Your task to perform on an android device: allow cookies in the chrome app Image 0: 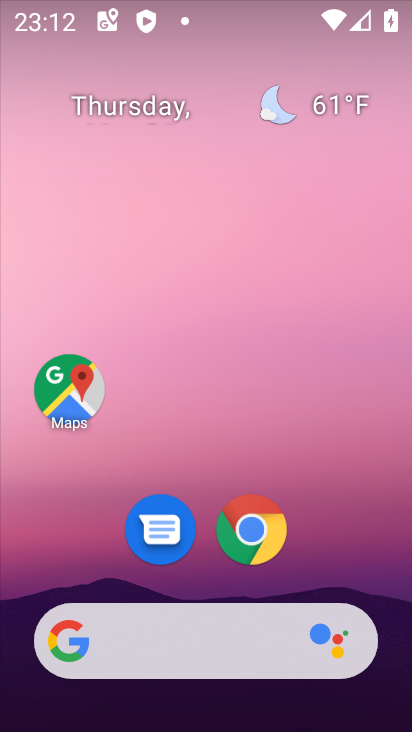
Step 0: click (272, 534)
Your task to perform on an android device: allow cookies in the chrome app Image 1: 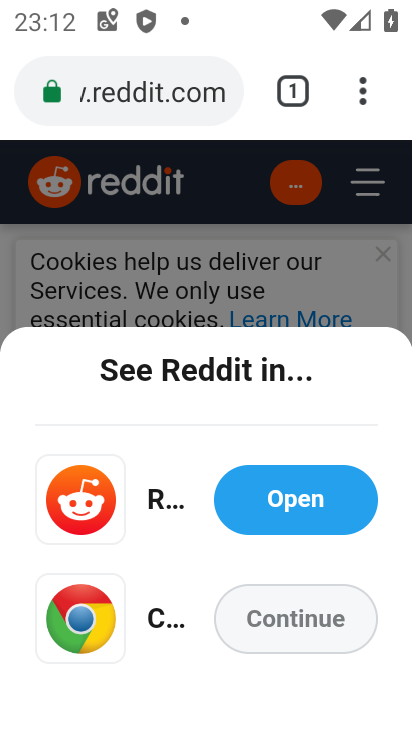
Step 1: click (361, 110)
Your task to perform on an android device: allow cookies in the chrome app Image 2: 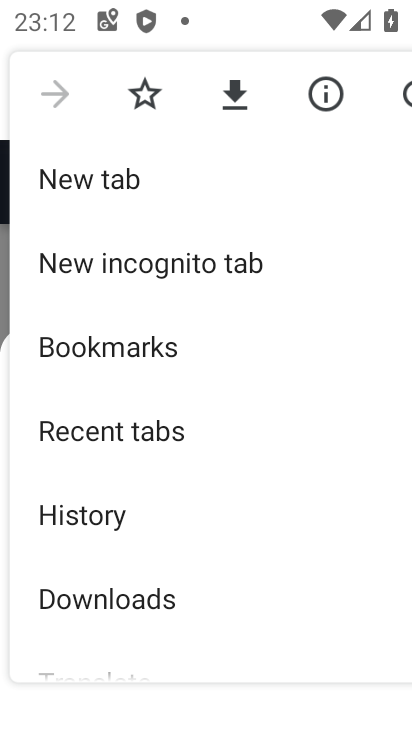
Step 2: drag from (231, 482) to (231, 217)
Your task to perform on an android device: allow cookies in the chrome app Image 3: 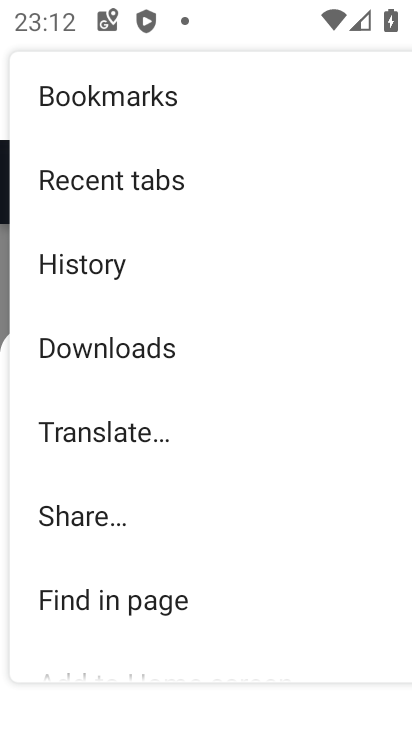
Step 3: drag from (202, 630) to (167, 290)
Your task to perform on an android device: allow cookies in the chrome app Image 4: 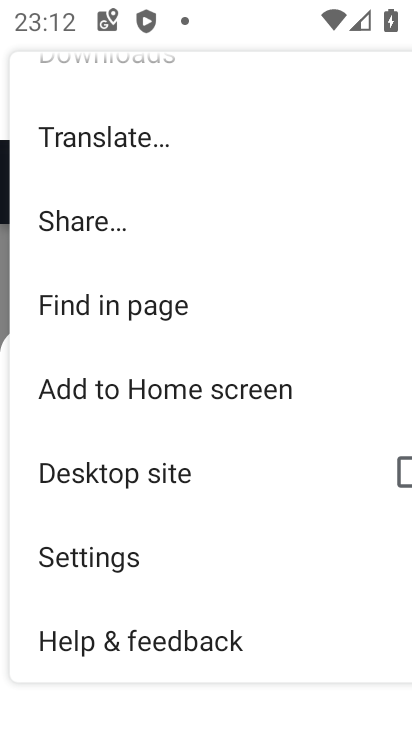
Step 4: click (167, 290)
Your task to perform on an android device: allow cookies in the chrome app Image 5: 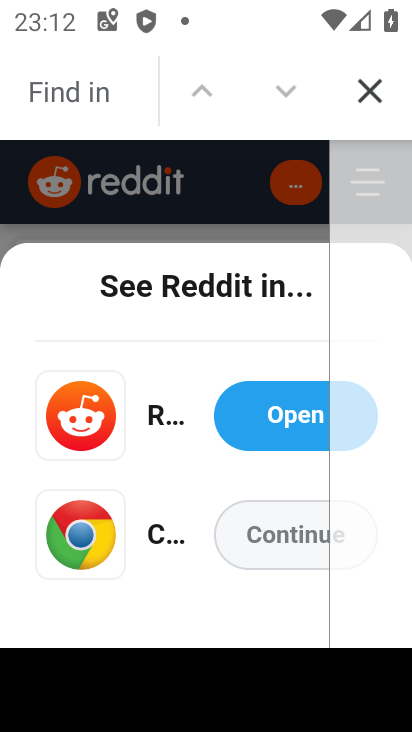
Step 5: click (367, 119)
Your task to perform on an android device: allow cookies in the chrome app Image 6: 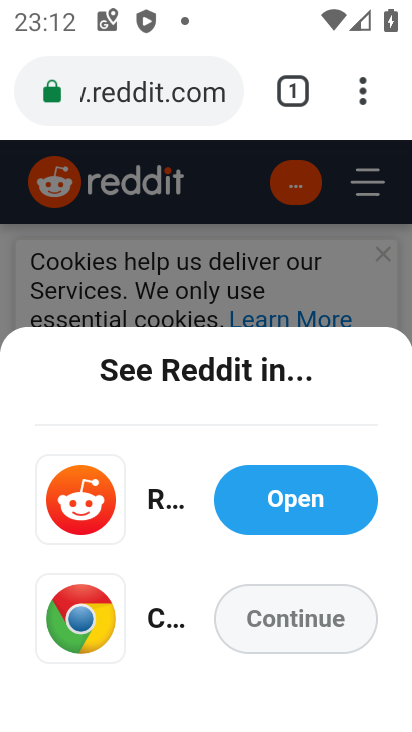
Step 6: task complete